Your task to perform on an android device: Go to eBay Image 0: 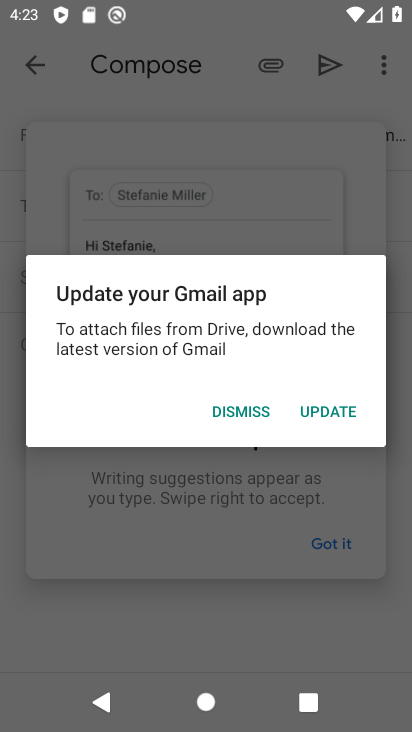
Step 0: press home button
Your task to perform on an android device: Go to eBay Image 1: 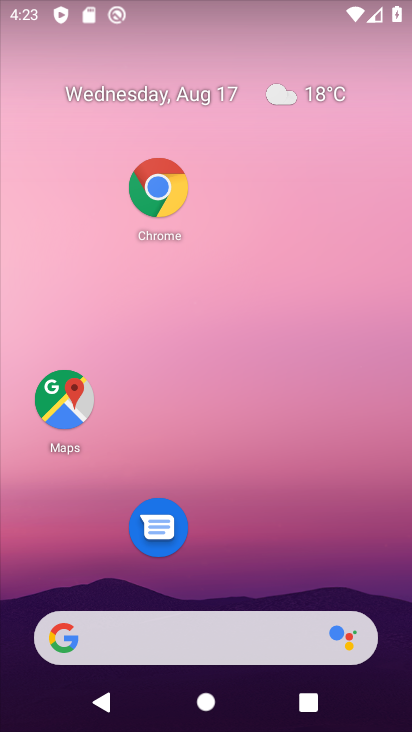
Step 1: click (198, 640)
Your task to perform on an android device: Go to eBay Image 2: 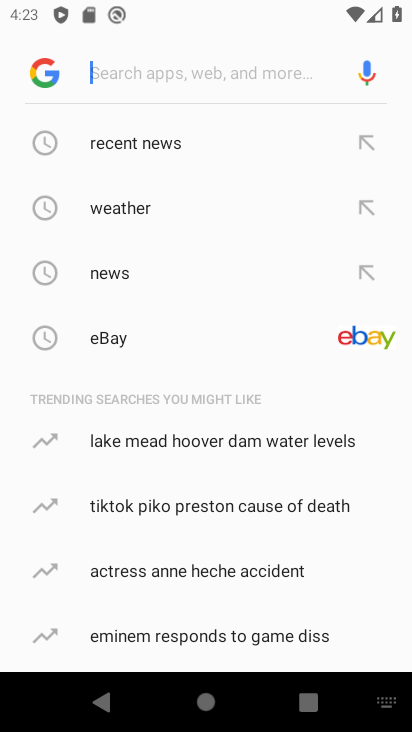
Step 2: click (345, 335)
Your task to perform on an android device: Go to eBay Image 3: 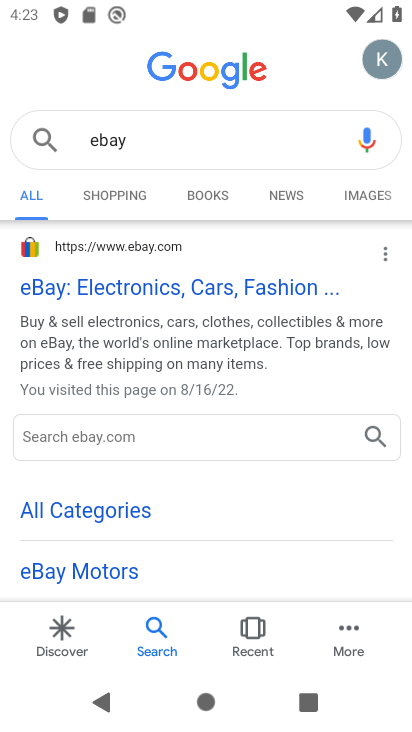
Step 3: click (288, 287)
Your task to perform on an android device: Go to eBay Image 4: 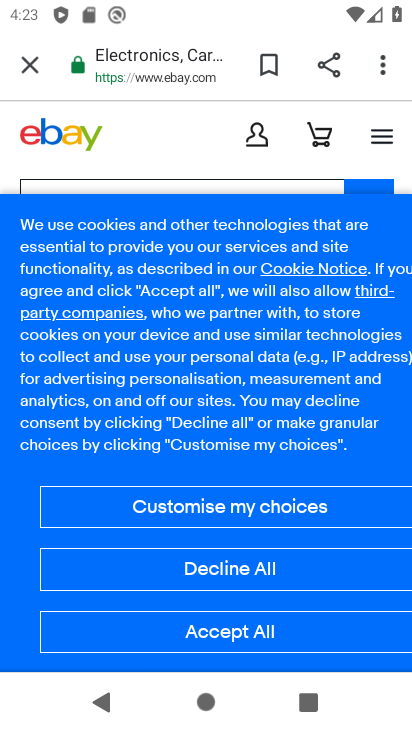
Step 4: task complete